Your task to perform on an android device: change keyboard looks Image 0: 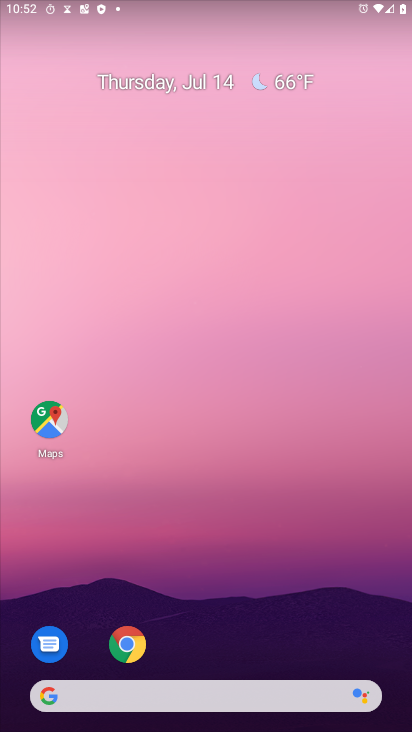
Step 0: drag from (218, 702) to (139, 27)
Your task to perform on an android device: change keyboard looks Image 1: 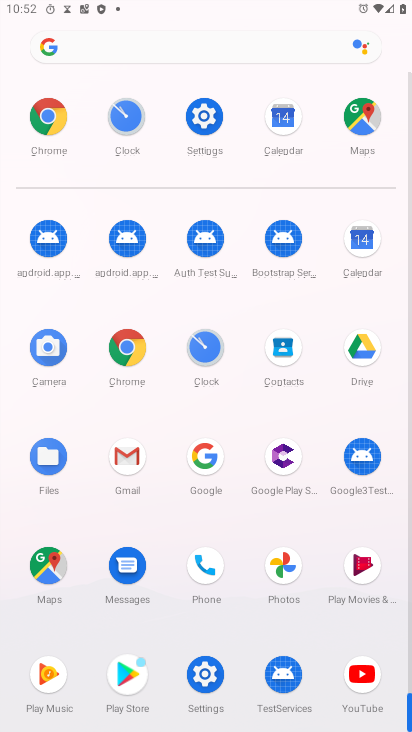
Step 1: click (202, 118)
Your task to perform on an android device: change keyboard looks Image 2: 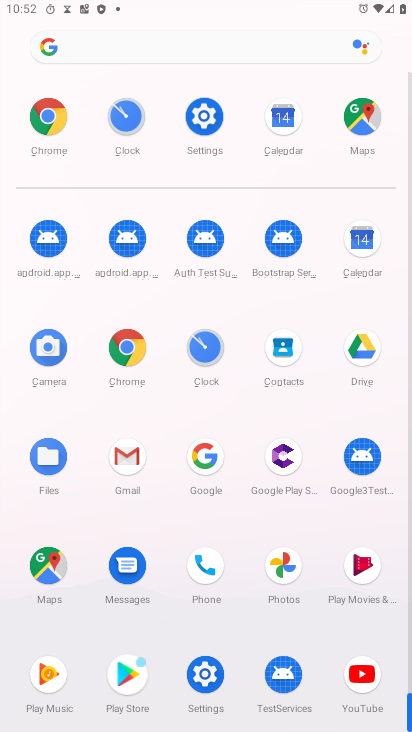
Step 2: click (203, 117)
Your task to perform on an android device: change keyboard looks Image 3: 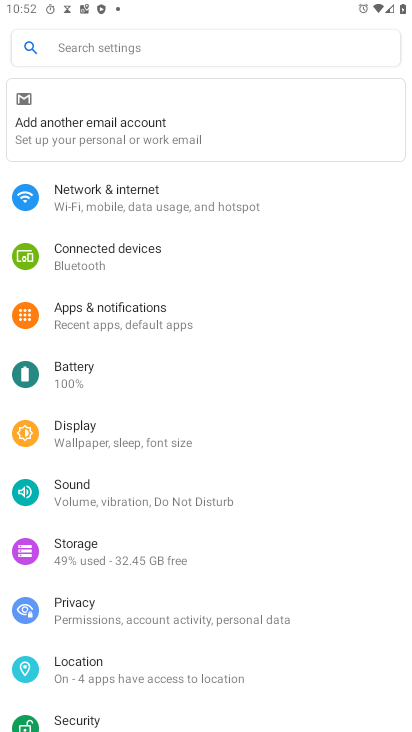
Step 3: drag from (145, 610) to (162, 98)
Your task to perform on an android device: change keyboard looks Image 4: 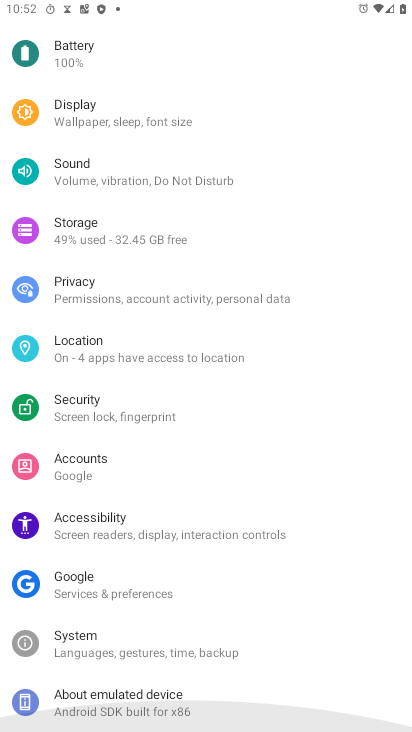
Step 4: drag from (229, 570) to (217, 166)
Your task to perform on an android device: change keyboard looks Image 5: 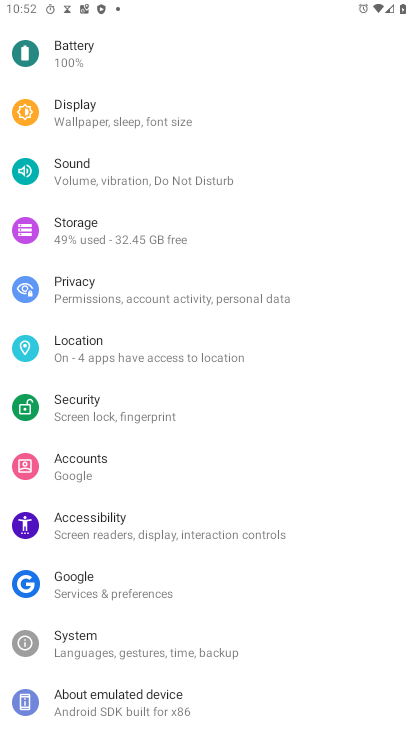
Step 5: click (91, 634)
Your task to perform on an android device: change keyboard looks Image 6: 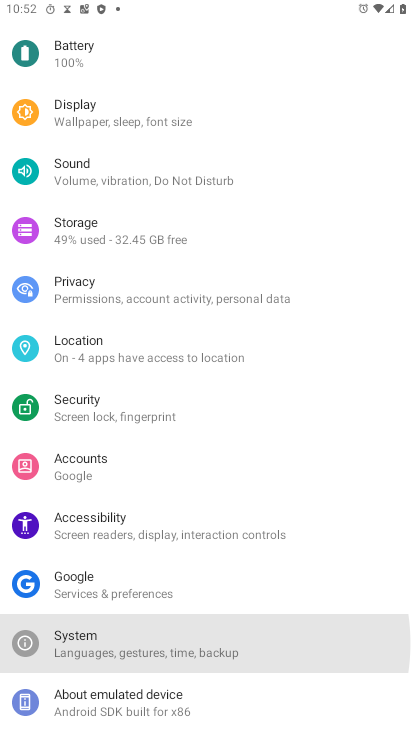
Step 6: click (90, 634)
Your task to perform on an android device: change keyboard looks Image 7: 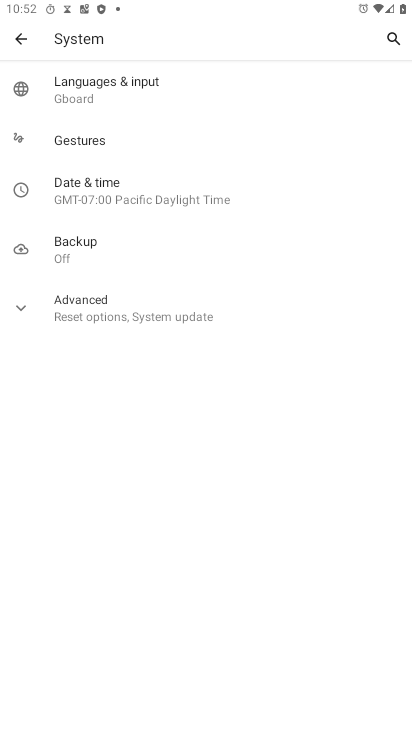
Step 7: click (72, 83)
Your task to perform on an android device: change keyboard looks Image 8: 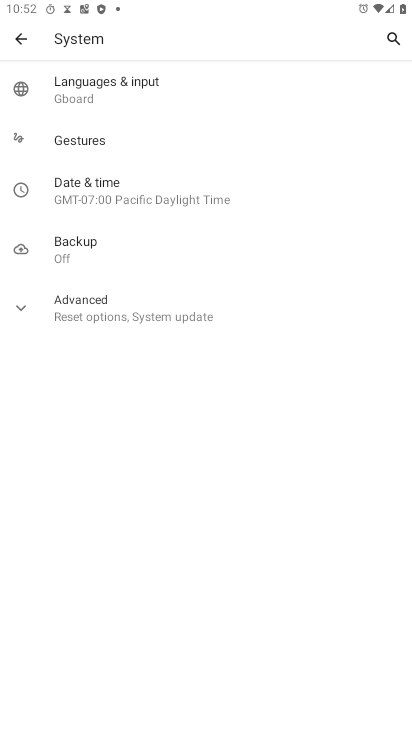
Step 8: click (81, 91)
Your task to perform on an android device: change keyboard looks Image 9: 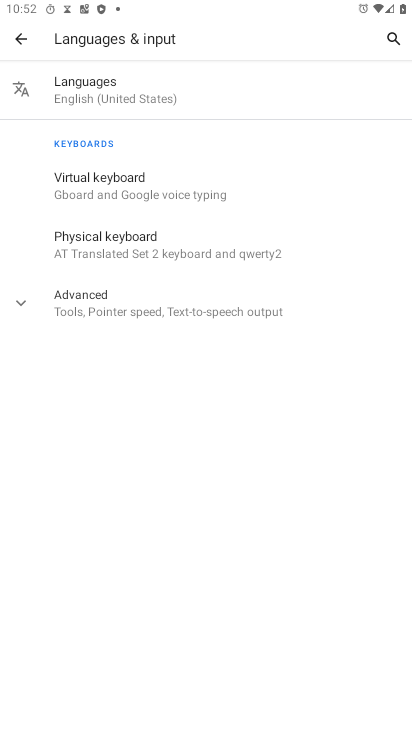
Step 9: click (91, 187)
Your task to perform on an android device: change keyboard looks Image 10: 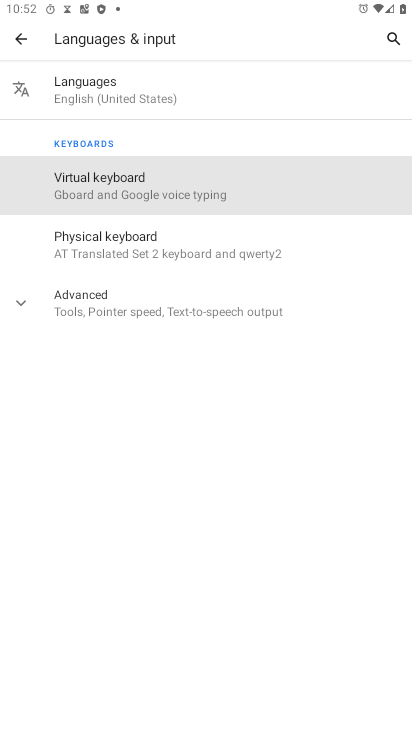
Step 10: click (91, 188)
Your task to perform on an android device: change keyboard looks Image 11: 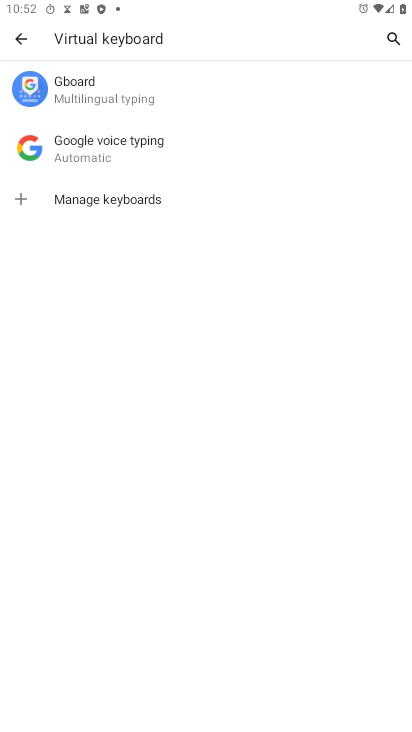
Step 11: click (86, 99)
Your task to perform on an android device: change keyboard looks Image 12: 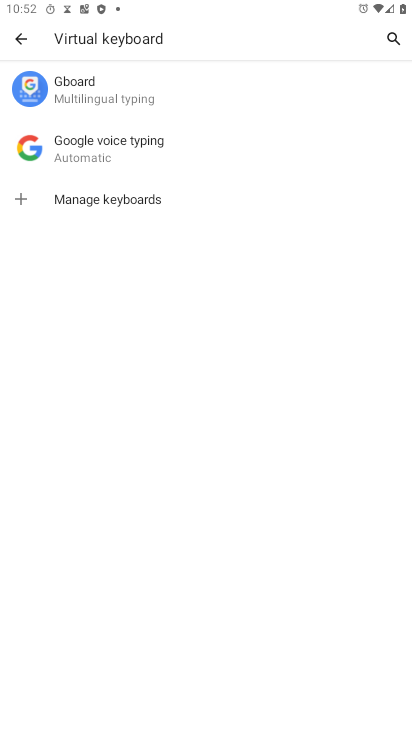
Step 12: click (86, 99)
Your task to perform on an android device: change keyboard looks Image 13: 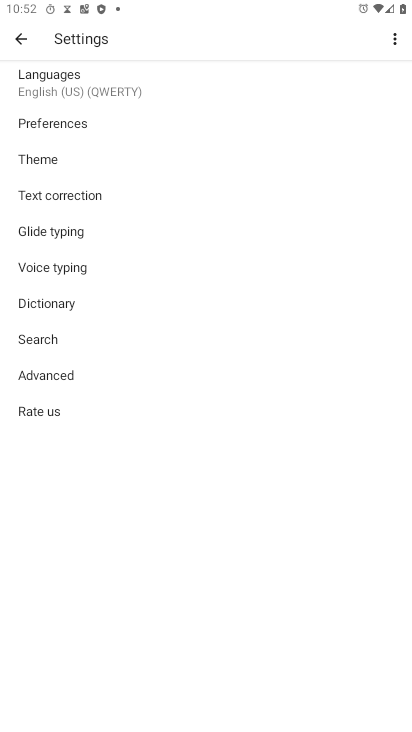
Step 13: click (39, 159)
Your task to perform on an android device: change keyboard looks Image 14: 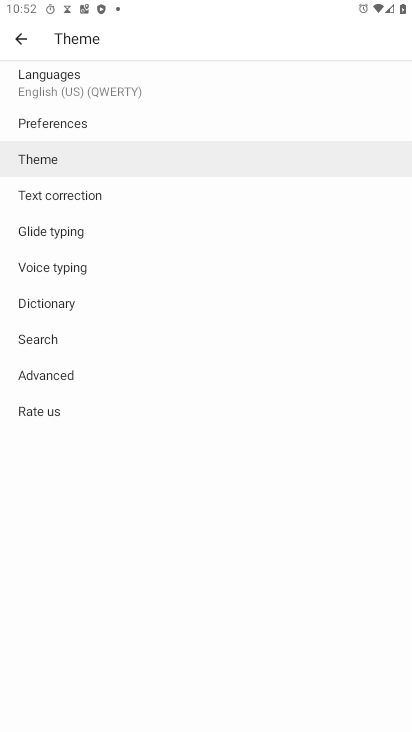
Step 14: click (33, 162)
Your task to perform on an android device: change keyboard looks Image 15: 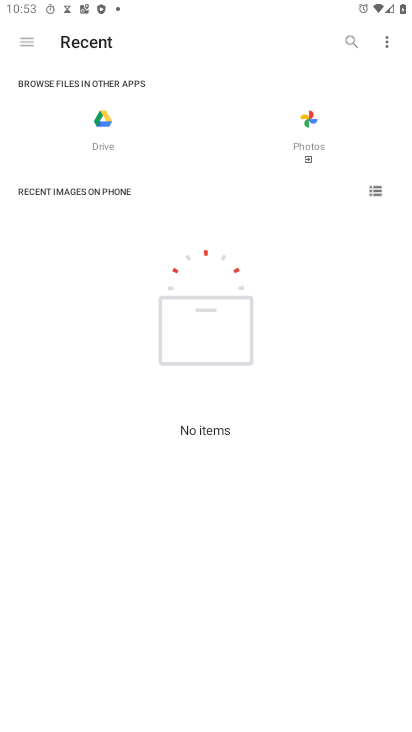
Step 15: press back button
Your task to perform on an android device: change keyboard looks Image 16: 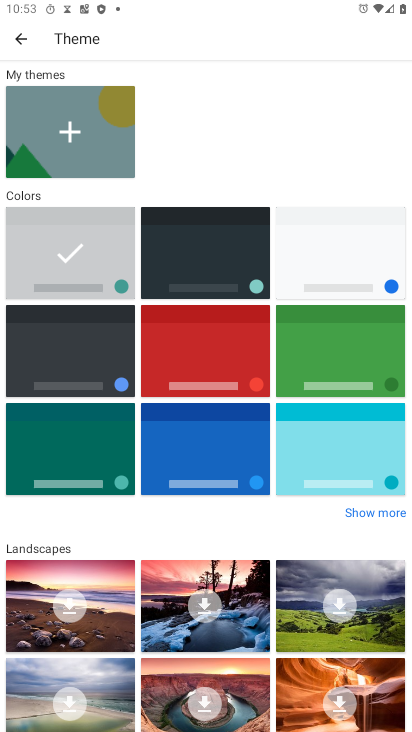
Step 16: click (72, 352)
Your task to perform on an android device: change keyboard looks Image 17: 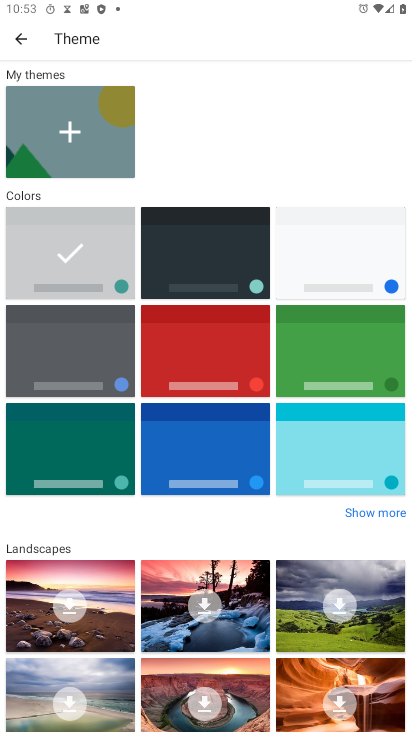
Step 17: click (72, 352)
Your task to perform on an android device: change keyboard looks Image 18: 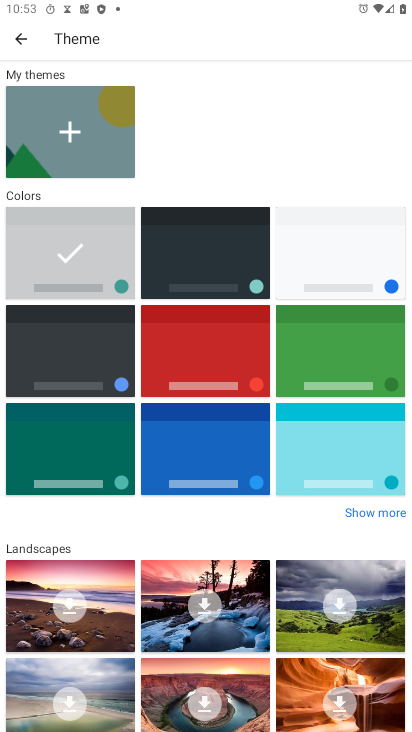
Step 18: click (72, 352)
Your task to perform on an android device: change keyboard looks Image 19: 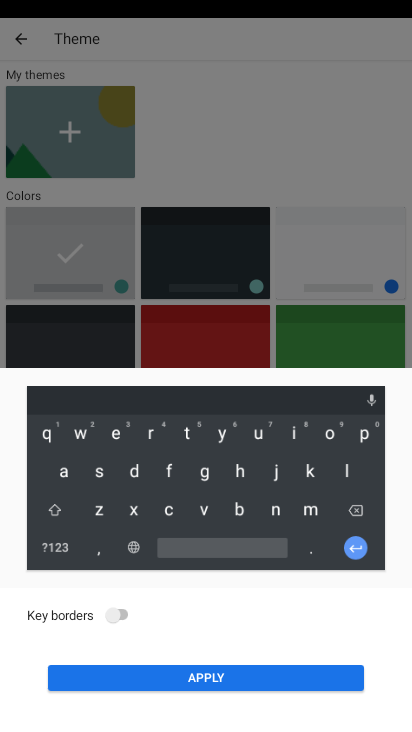
Step 19: task complete